Your task to perform on an android device: change timer sound Image 0: 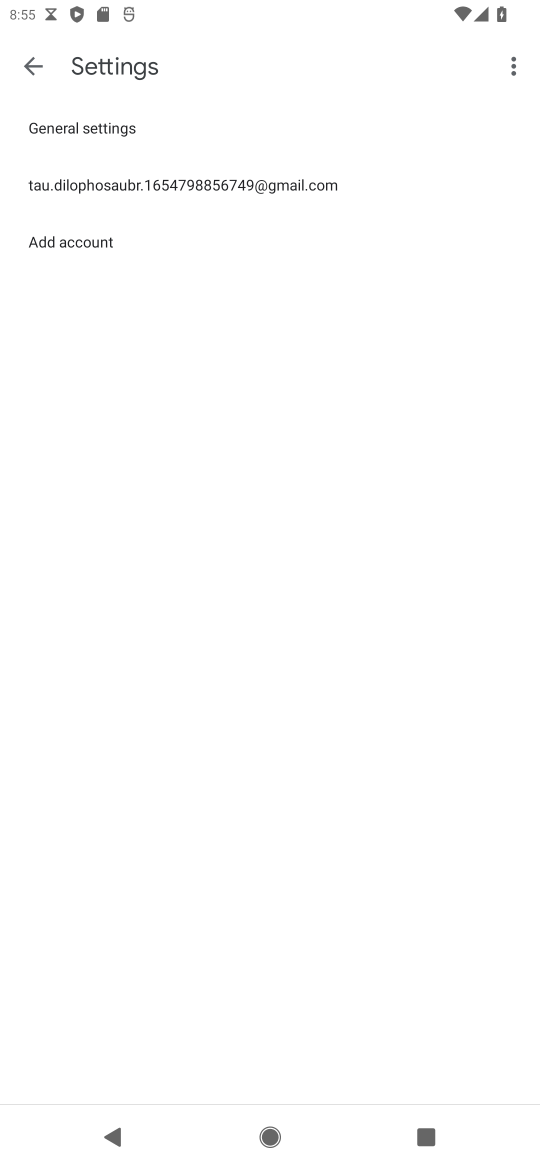
Step 0: press home button
Your task to perform on an android device: change timer sound Image 1: 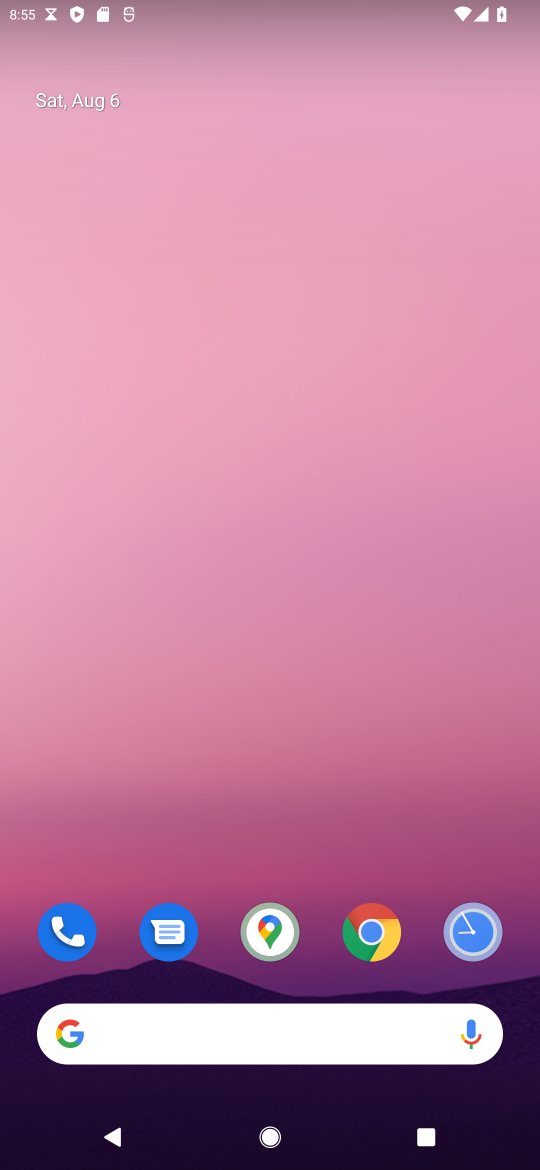
Step 1: drag from (248, 1027) to (362, 505)
Your task to perform on an android device: change timer sound Image 2: 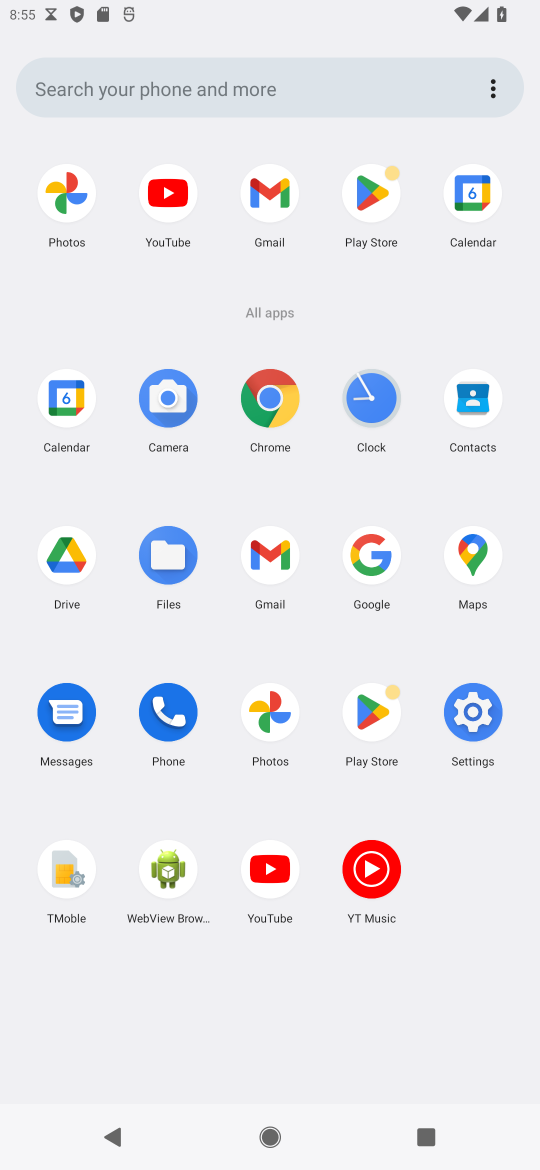
Step 2: click (372, 397)
Your task to perform on an android device: change timer sound Image 3: 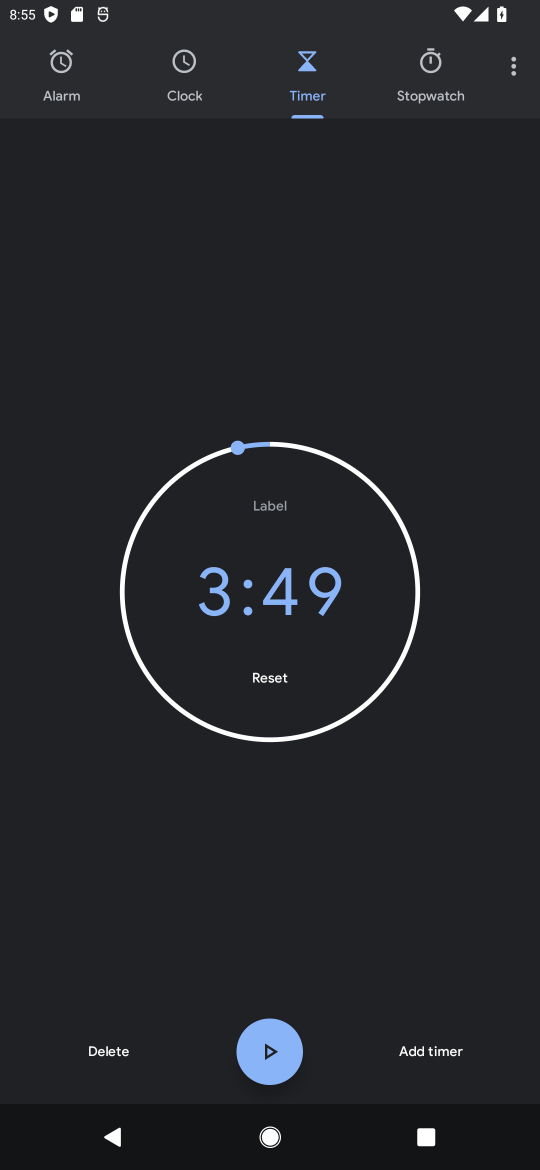
Step 3: click (517, 69)
Your task to perform on an android device: change timer sound Image 4: 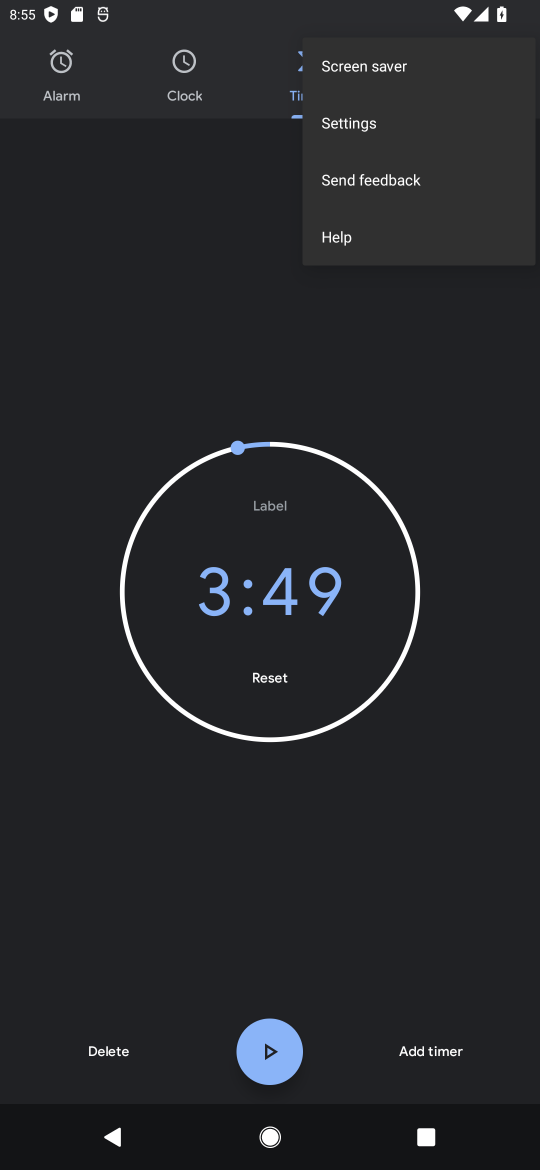
Step 4: click (340, 125)
Your task to perform on an android device: change timer sound Image 5: 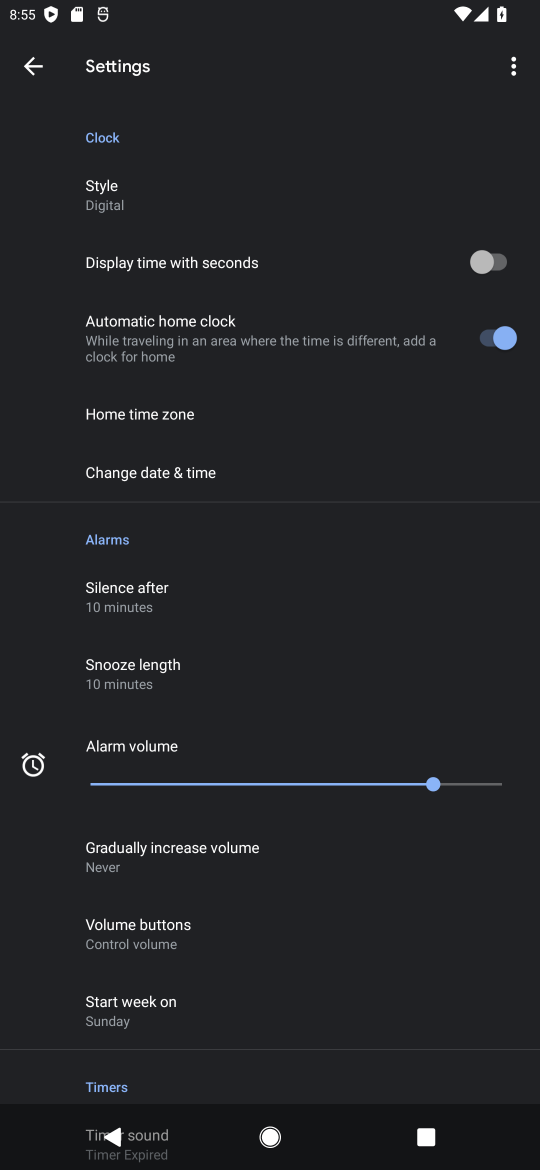
Step 5: drag from (287, 903) to (422, 658)
Your task to perform on an android device: change timer sound Image 6: 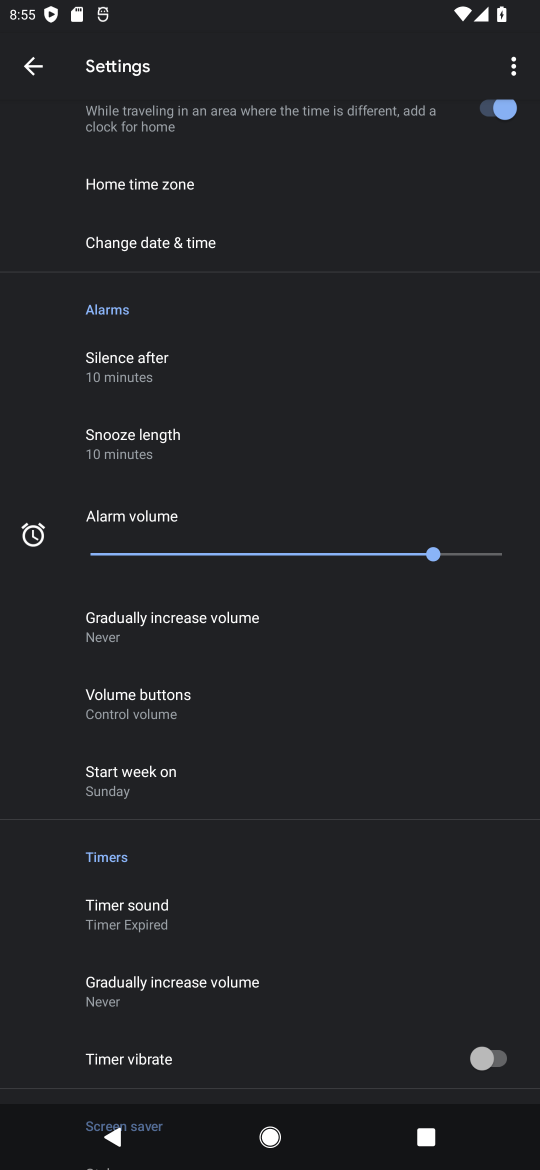
Step 6: click (122, 920)
Your task to perform on an android device: change timer sound Image 7: 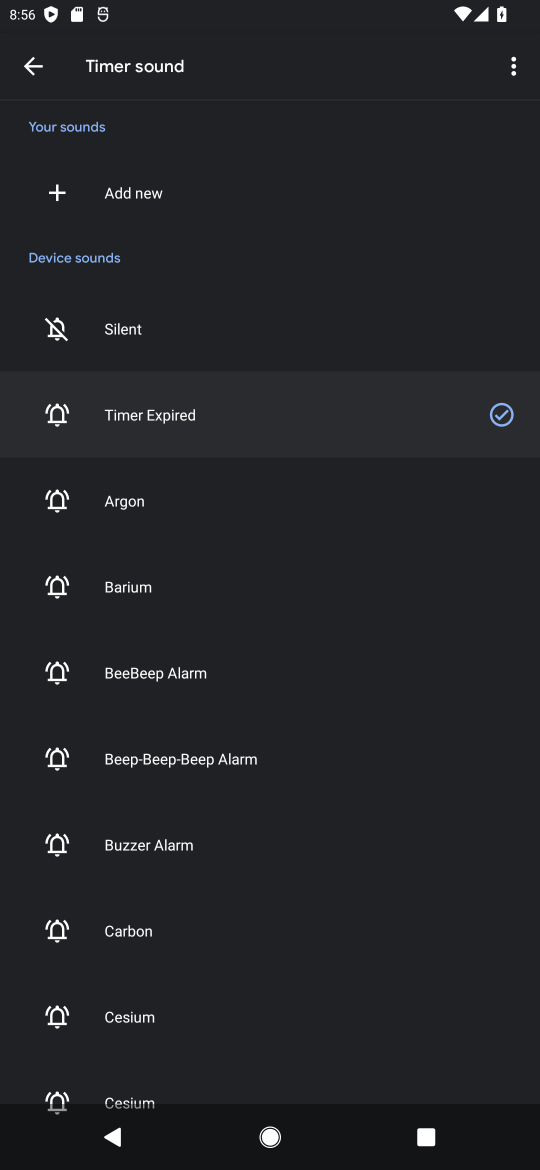
Step 7: drag from (179, 978) to (244, 724)
Your task to perform on an android device: change timer sound Image 8: 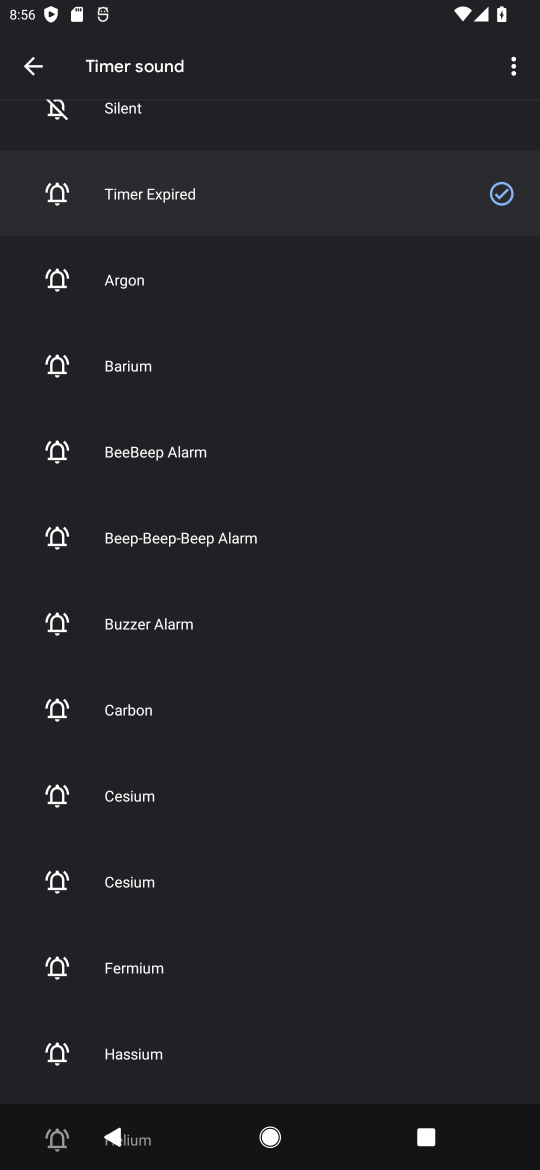
Step 8: drag from (166, 847) to (286, 612)
Your task to perform on an android device: change timer sound Image 9: 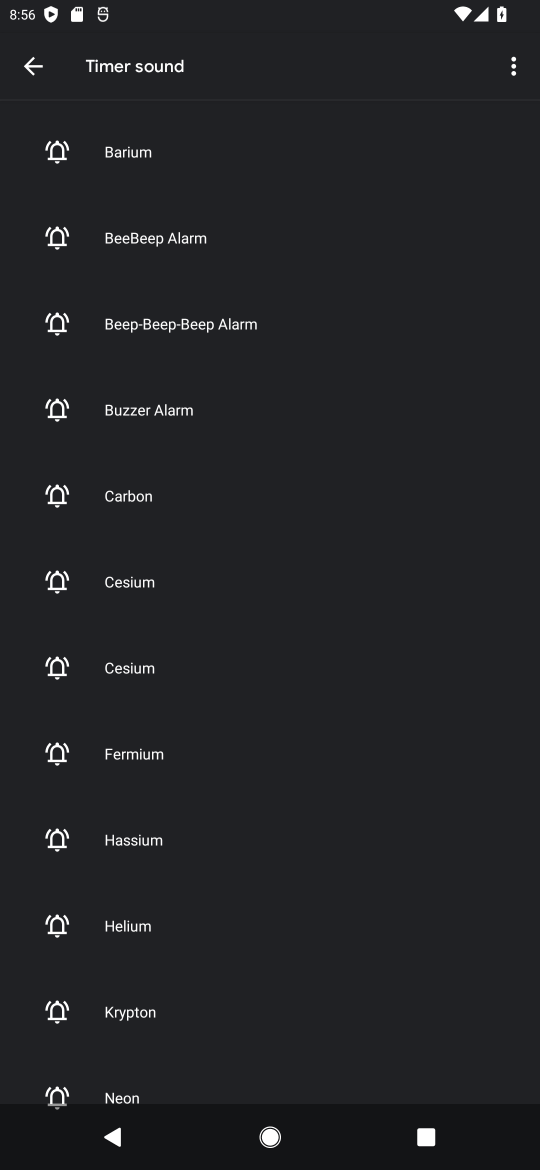
Step 9: click (179, 680)
Your task to perform on an android device: change timer sound Image 10: 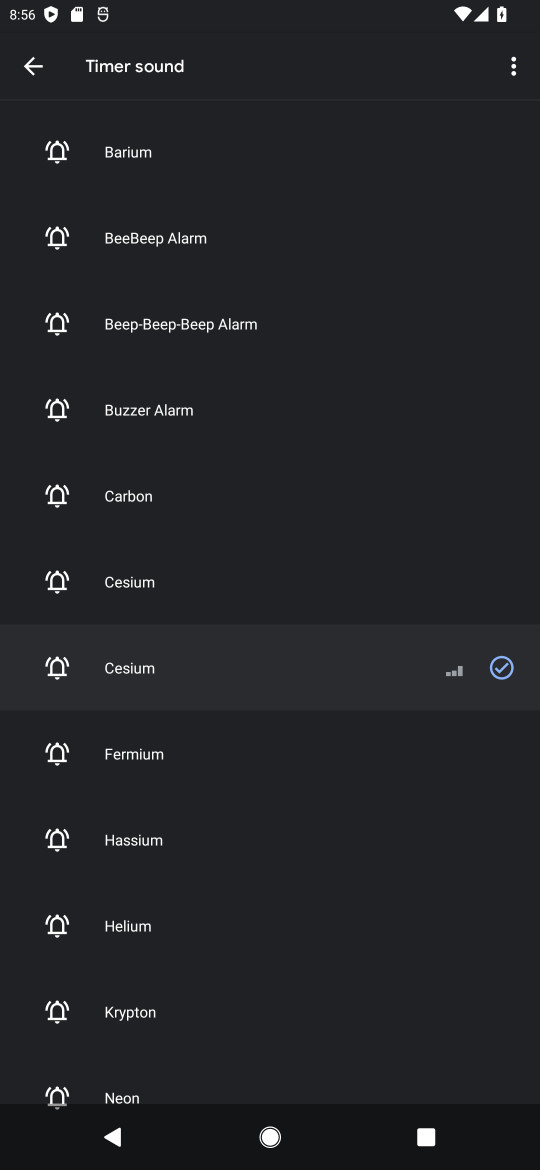
Step 10: task complete